Your task to perform on an android device: Go to Google Image 0: 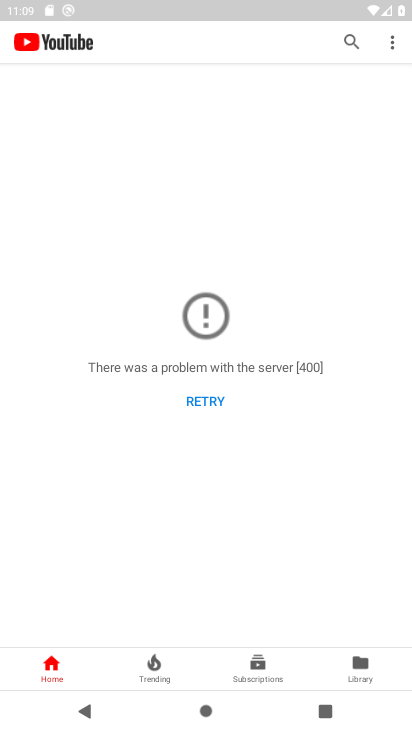
Step 0: press home button
Your task to perform on an android device: Go to Google Image 1: 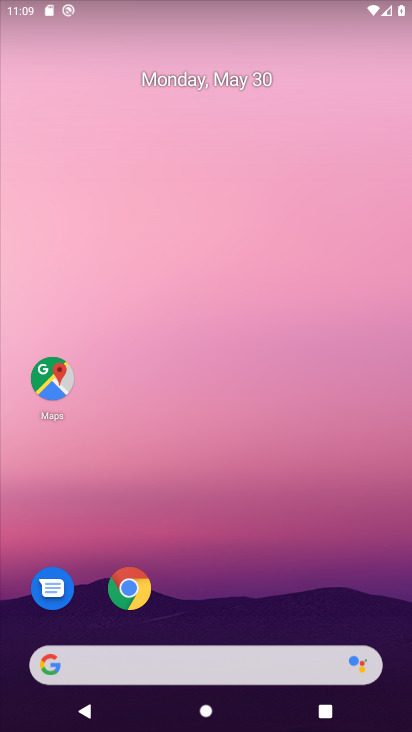
Step 1: drag from (202, 694) to (361, 56)
Your task to perform on an android device: Go to Google Image 2: 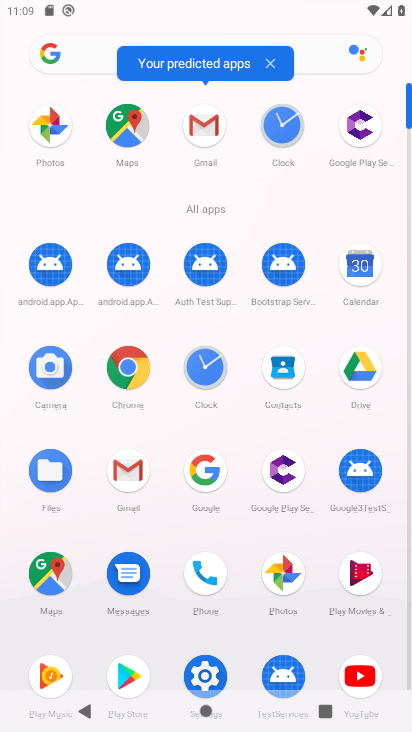
Step 2: click (211, 468)
Your task to perform on an android device: Go to Google Image 3: 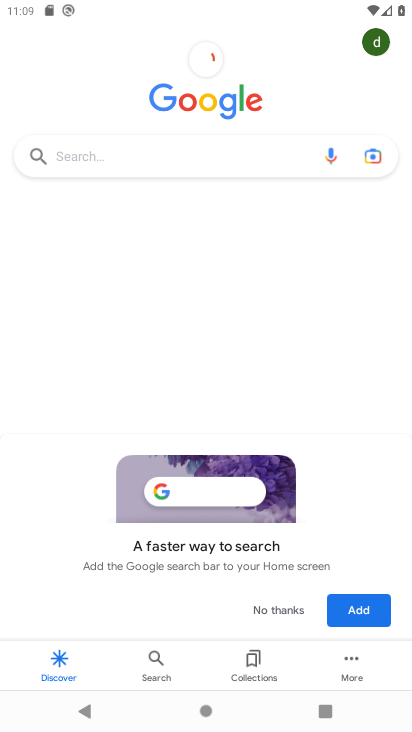
Step 3: task complete